Your task to perform on an android device: change notifications settings Image 0: 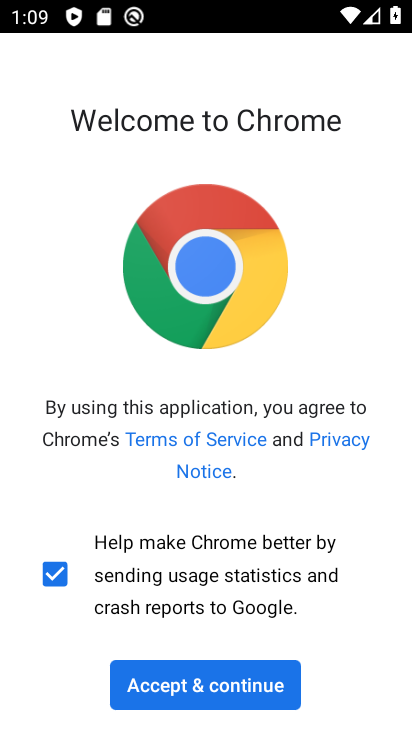
Step 0: click (406, 346)
Your task to perform on an android device: change notifications settings Image 1: 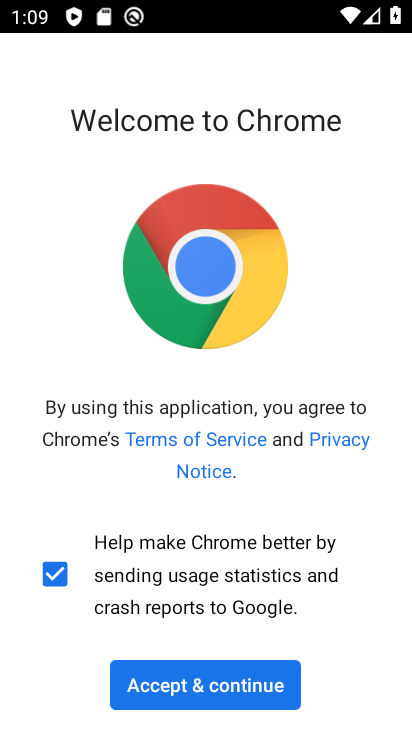
Step 1: press home button
Your task to perform on an android device: change notifications settings Image 2: 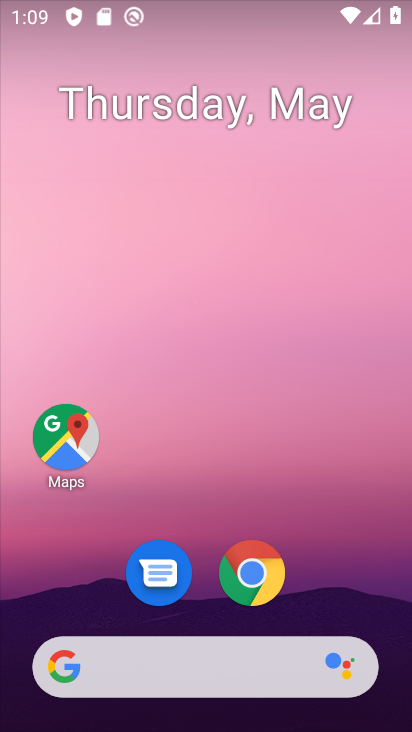
Step 2: drag from (340, 596) to (321, 141)
Your task to perform on an android device: change notifications settings Image 3: 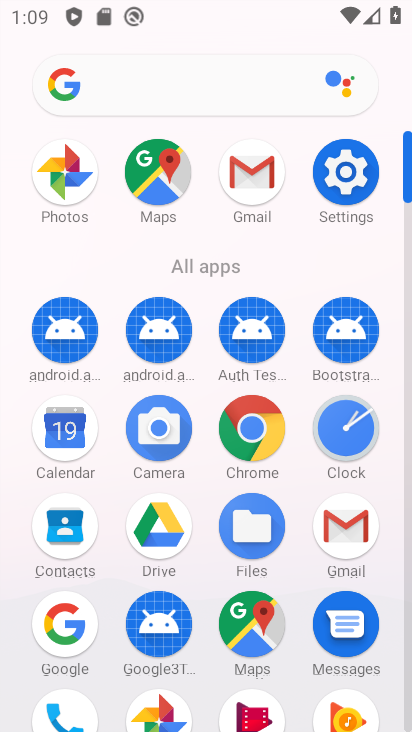
Step 3: click (337, 185)
Your task to perform on an android device: change notifications settings Image 4: 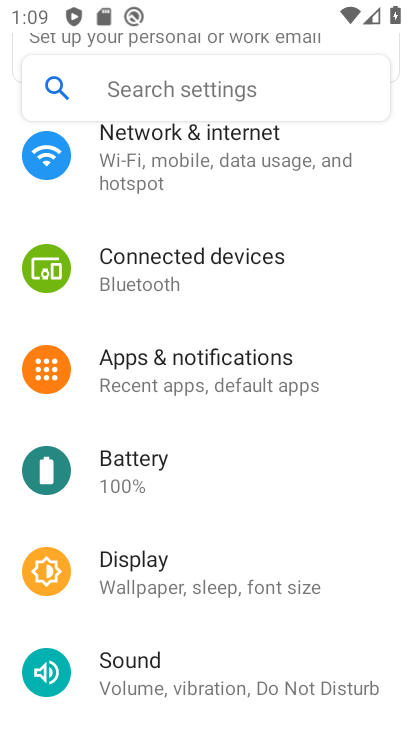
Step 4: click (243, 360)
Your task to perform on an android device: change notifications settings Image 5: 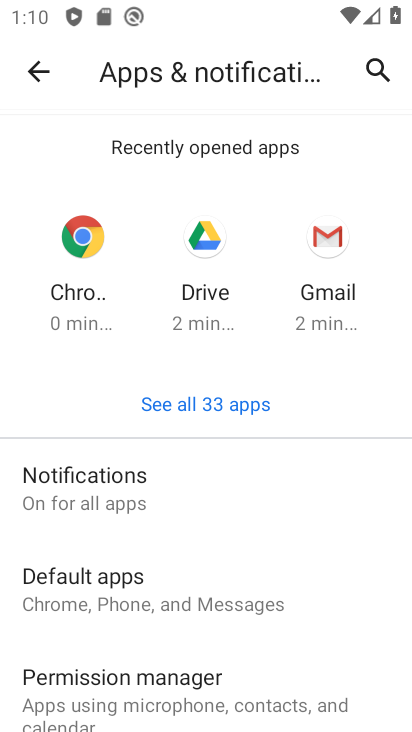
Step 5: click (61, 486)
Your task to perform on an android device: change notifications settings Image 6: 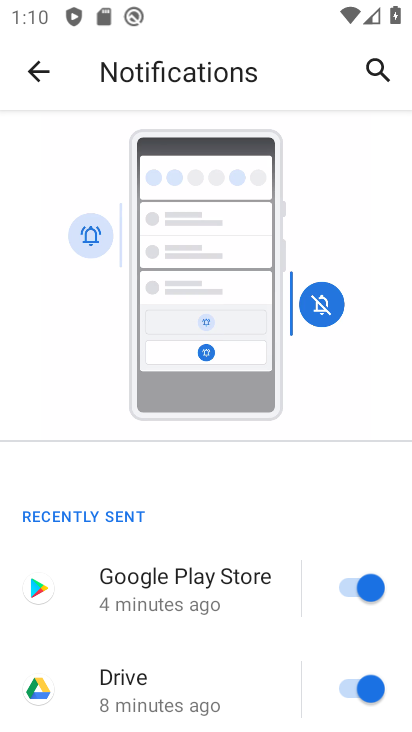
Step 6: drag from (257, 561) to (270, 114)
Your task to perform on an android device: change notifications settings Image 7: 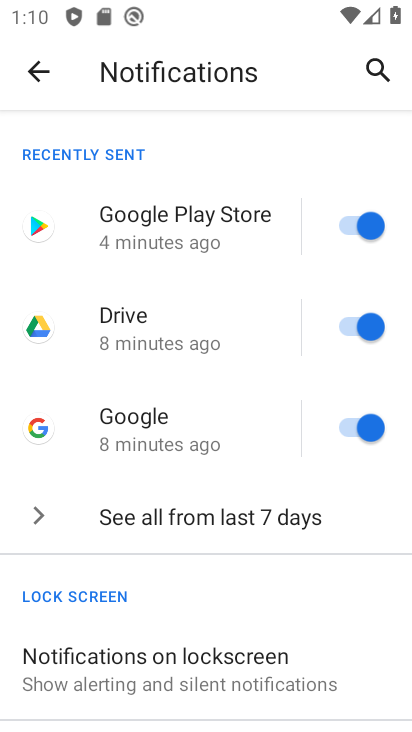
Step 7: drag from (352, 671) to (335, 159)
Your task to perform on an android device: change notifications settings Image 8: 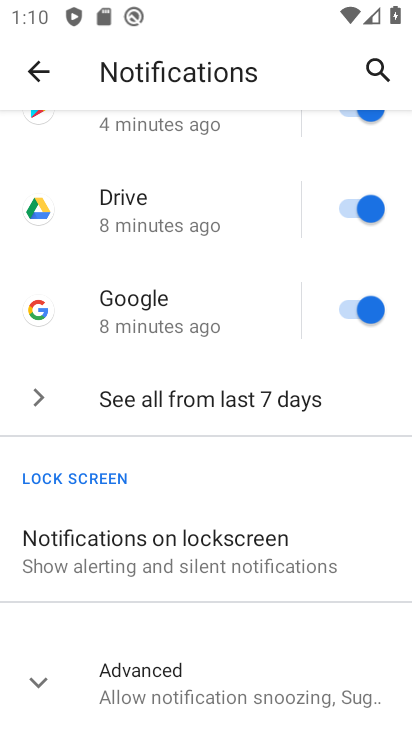
Step 8: click (352, 313)
Your task to perform on an android device: change notifications settings Image 9: 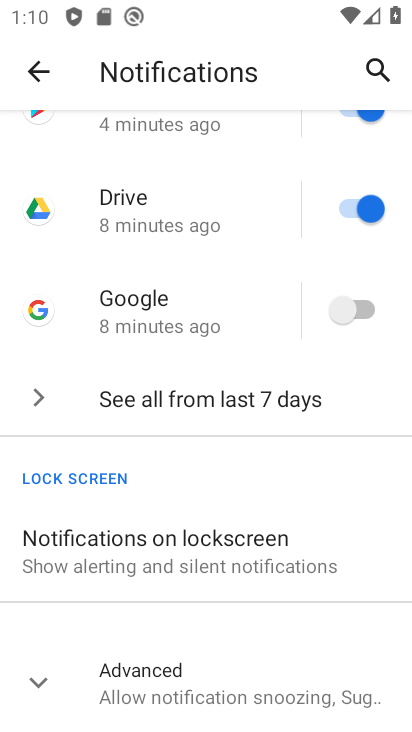
Step 9: task complete